Your task to perform on an android device: See recent photos Image 0: 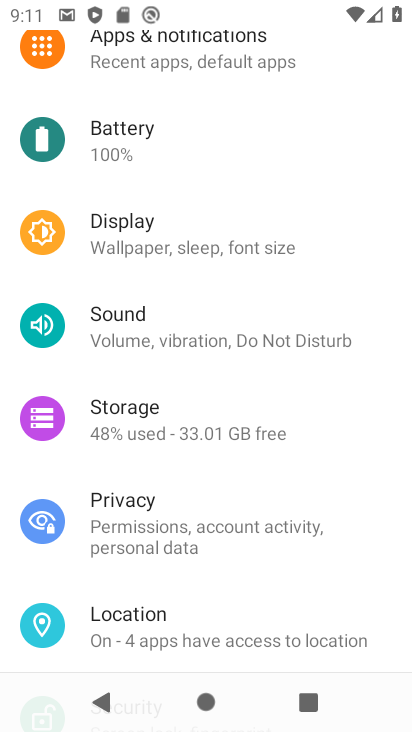
Step 0: press home button
Your task to perform on an android device: See recent photos Image 1: 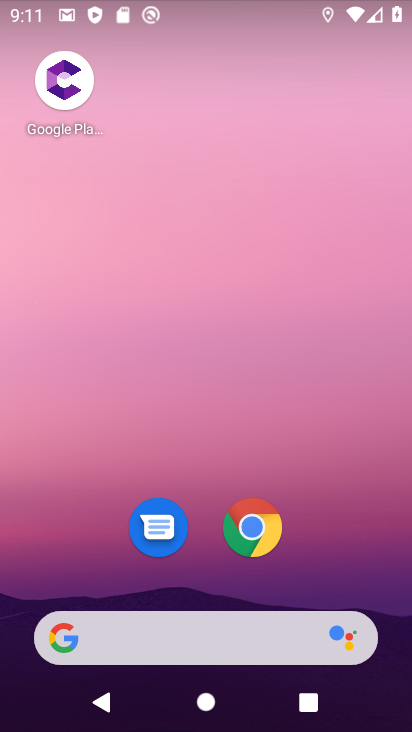
Step 1: drag from (196, 578) to (201, 39)
Your task to perform on an android device: See recent photos Image 2: 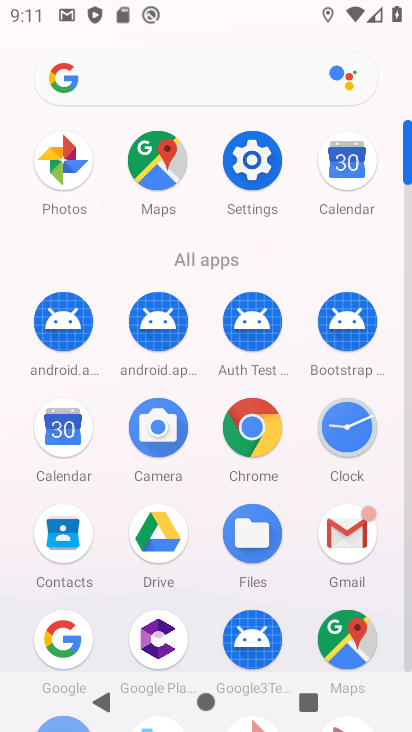
Step 2: click (67, 167)
Your task to perform on an android device: See recent photos Image 3: 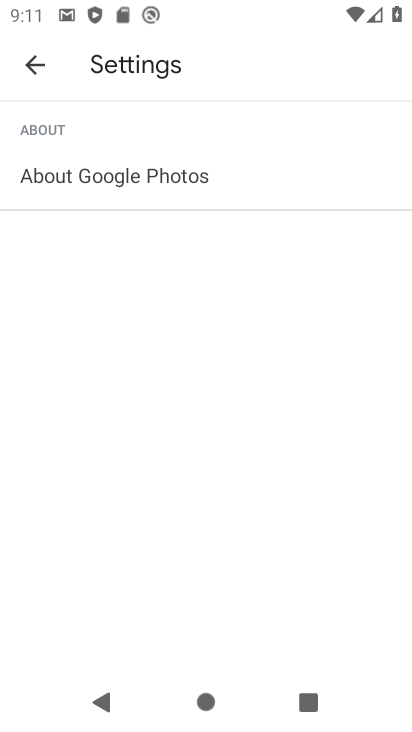
Step 3: click (31, 62)
Your task to perform on an android device: See recent photos Image 4: 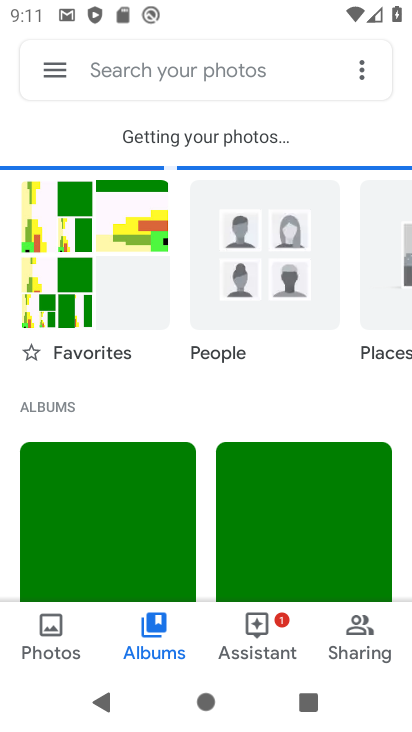
Step 4: click (39, 630)
Your task to perform on an android device: See recent photos Image 5: 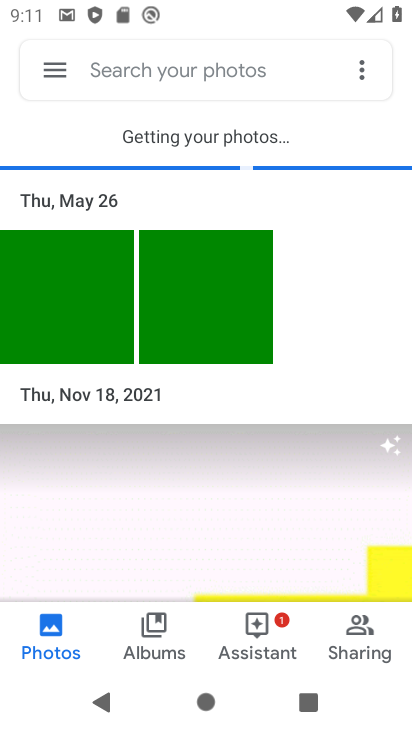
Step 5: task complete